Your task to perform on an android device: Open the calendar app, open the side menu, and click the "Day" option Image 0: 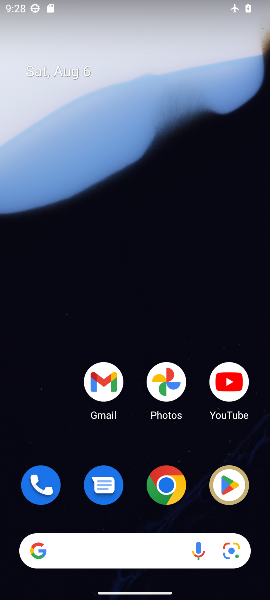
Step 0: drag from (139, 444) to (159, 34)
Your task to perform on an android device: Open the calendar app, open the side menu, and click the "Day" option Image 1: 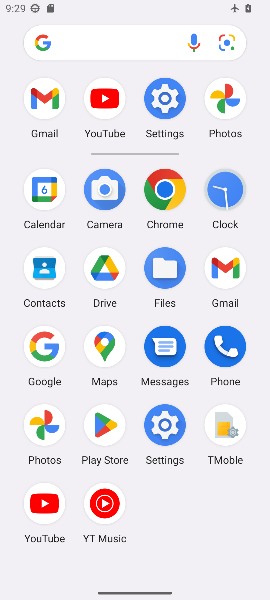
Step 1: click (37, 183)
Your task to perform on an android device: Open the calendar app, open the side menu, and click the "Day" option Image 2: 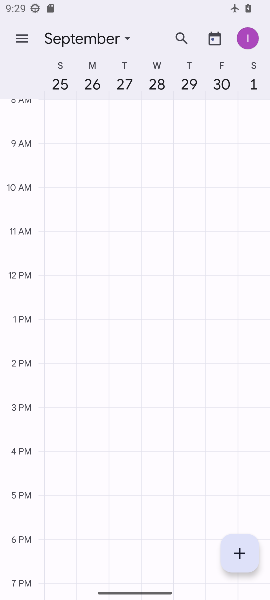
Step 2: click (20, 34)
Your task to perform on an android device: Open the calendar app, open the side menu, and click the "Day" option Image 3: 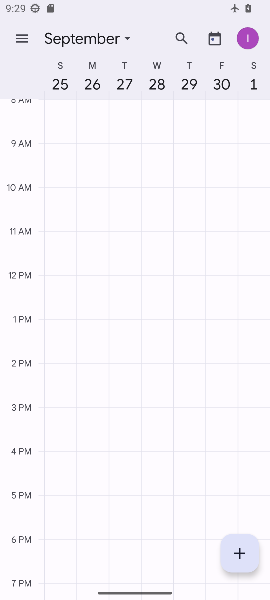
Step 3: click (30, 38)
Your task to perform on an android device: Open the calendar app, open the side menu, and click the "Day" option Image 4: 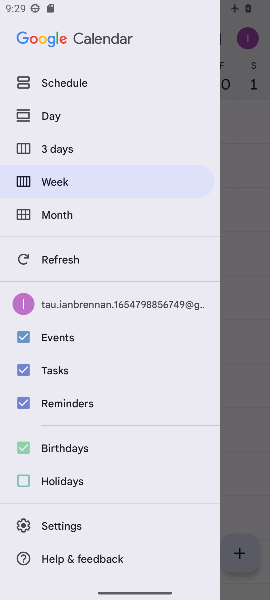
Step 4: click (64, 117)
Your task to perform on an android device: Open the calendar app, open the side menu, and click the "Day" option Image 5: 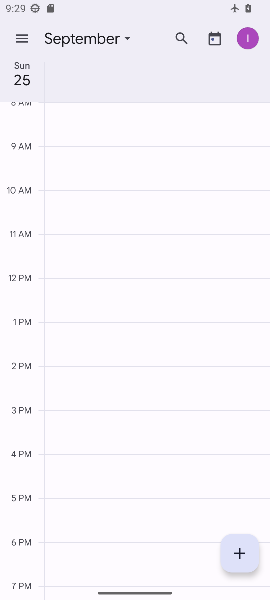
Step 5: task complete